Your task to perform on an android device: open app "Cash App" Image 0: 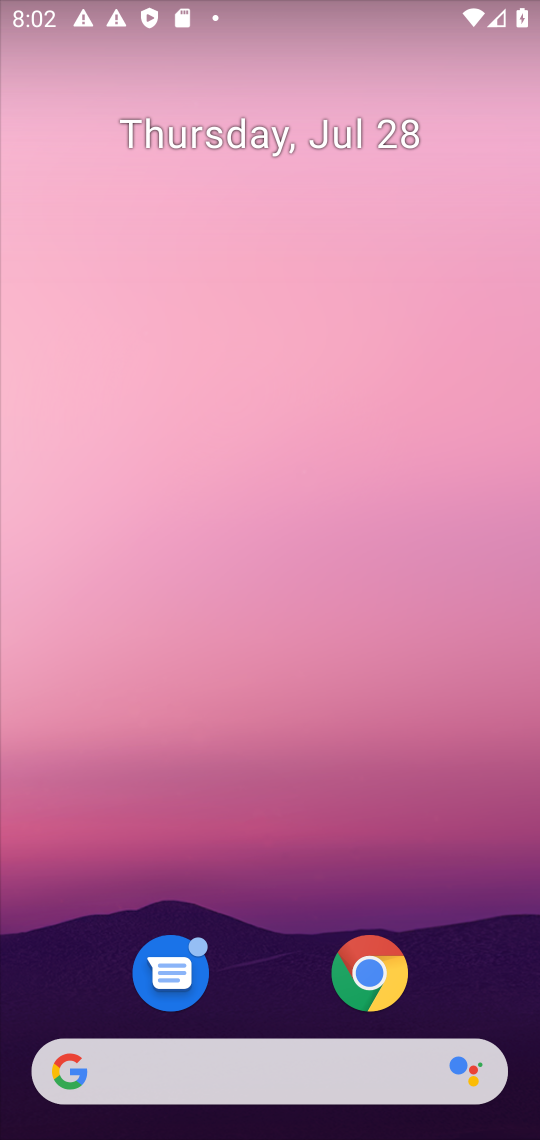
Step 0: drag from (122, 925) to (201, 222)
Your task to perform on an android device: open app "Cash App" Image 1: 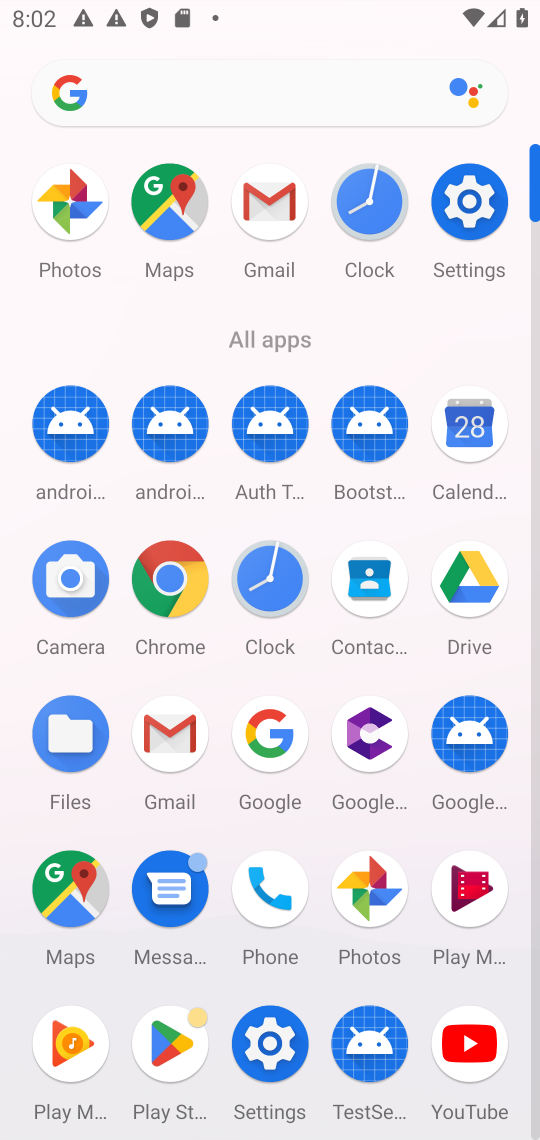
Step 1: click (152, 1049)
Your task to perform on an android device: open app "Cash App" Image 2: 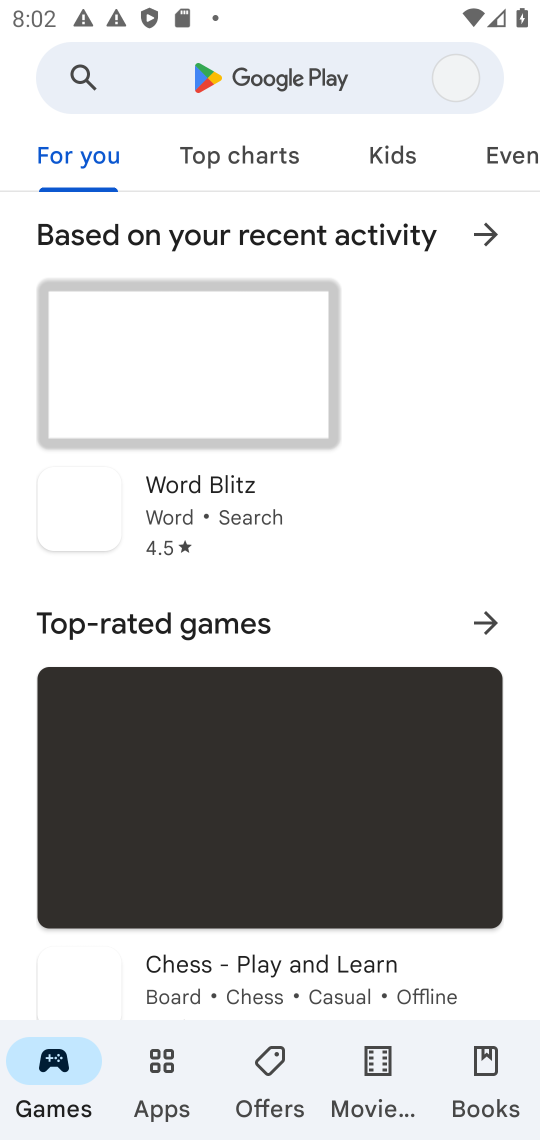
Step 2: click (249, 95)
Your task to perform on an android device: open app "Cash App" Image 3: 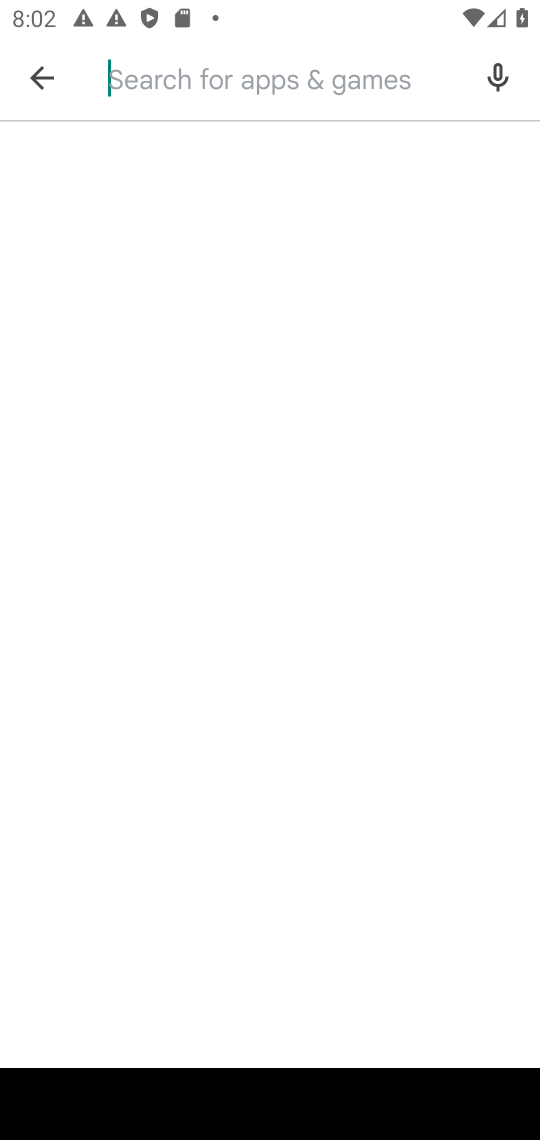
Step 3: type "Cash App"
Your task to perform on an android device: open app "Cash App" Image 4: 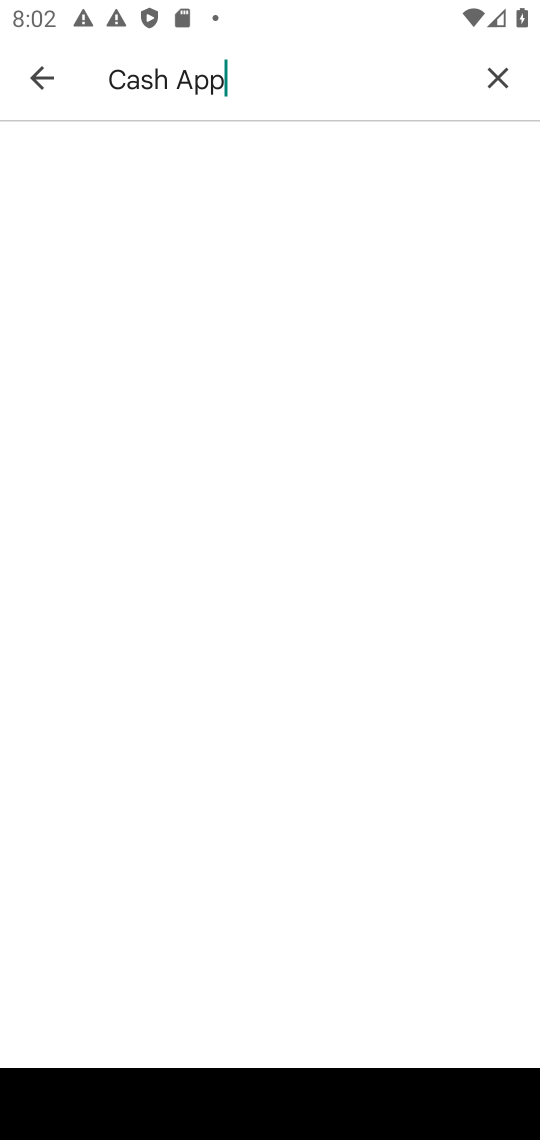
Step 4: type ""
Your task to perform on an android device: open app "Cash App" Image 5: 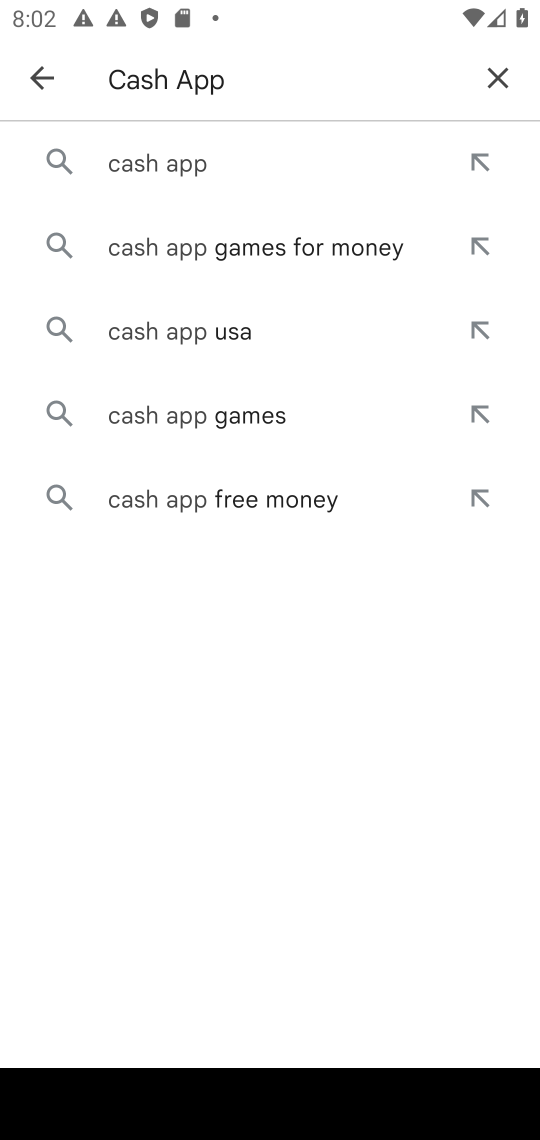
Step 5: click (291, 164)
Your task to perform on an android device: open app "Cash App" Image 6: 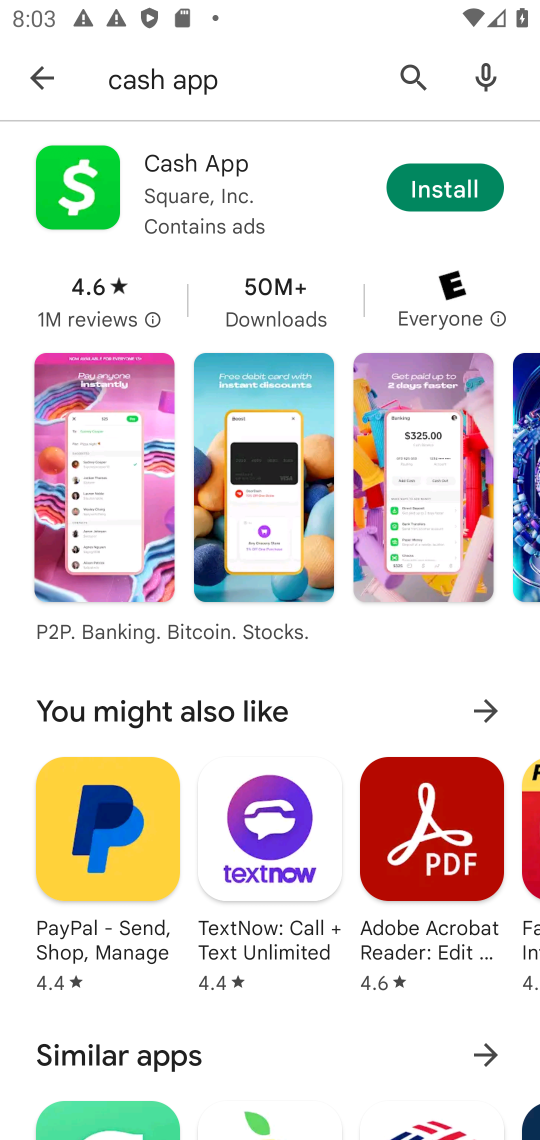
Step 6: task complete